Your task to perform on an android device: Show the shopping cart on target.com. Search for "usb-c" on target.com, select the first entry, and add it to the cart. Image 0: 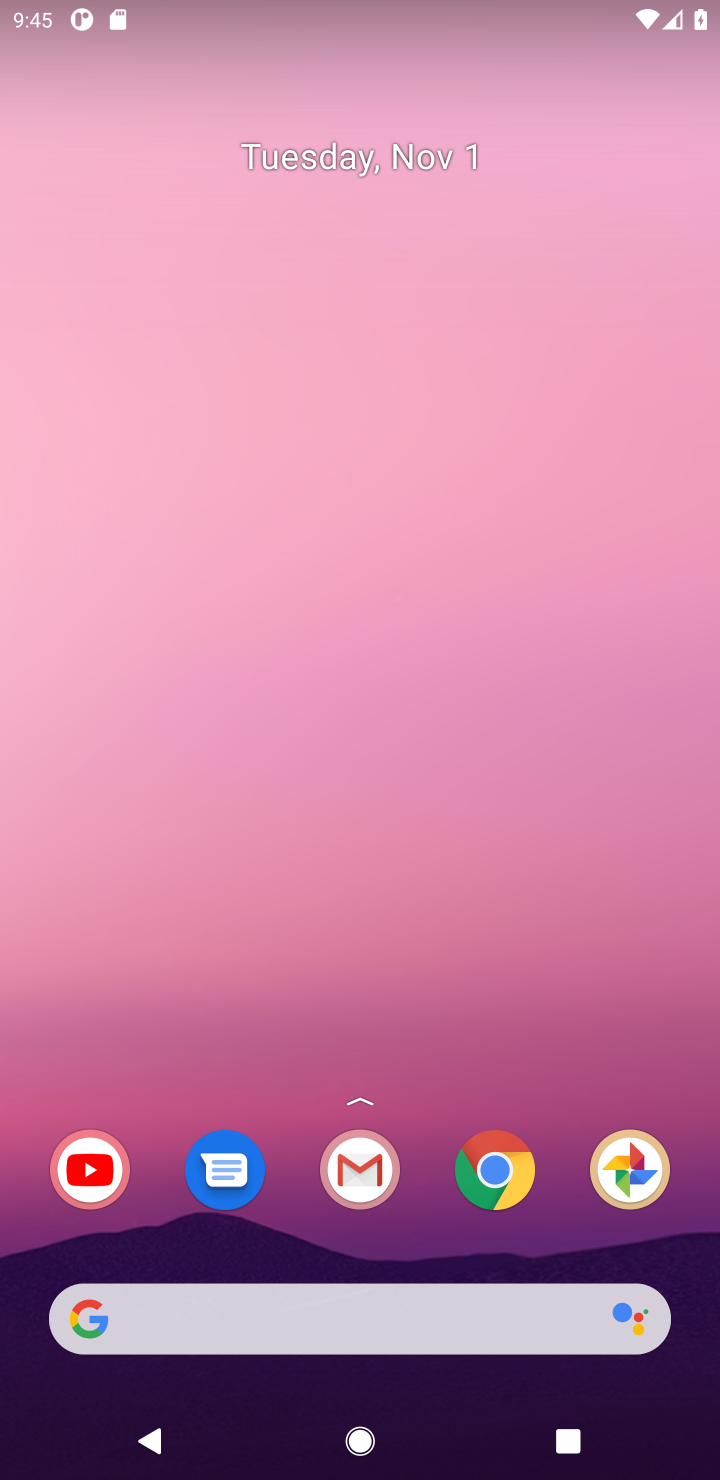
Step 0: click (504, 1162)
Your task to perform on an android device: Show the shopping cart on target.com. Search for "usb-c" on target.com, select the first entry, and add it to the cart. Image 1: 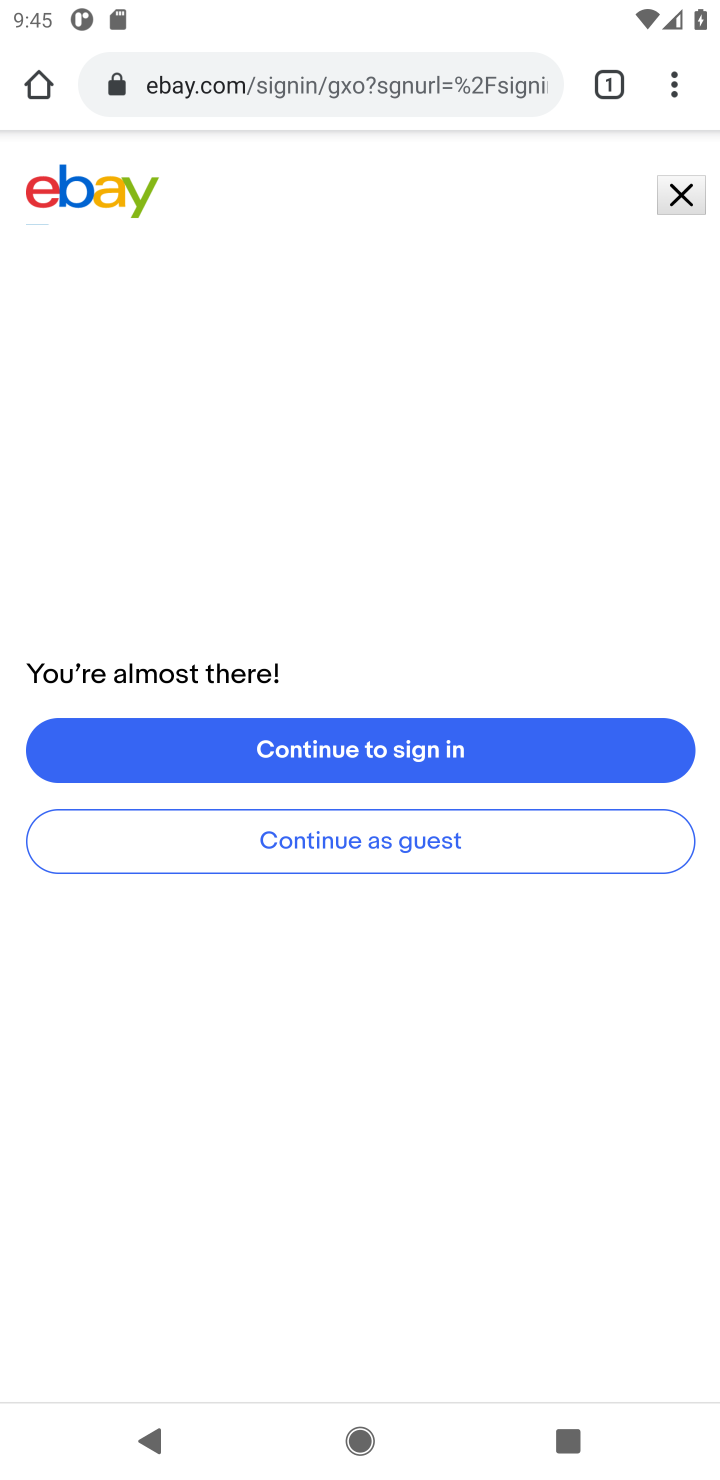
Step 1: click (400, 71)
Your task to perform on an android device: Show the shopping cart on target.com. Search for "usb-c" on target.com, select the first entry, and add it to the cart. Image 2: 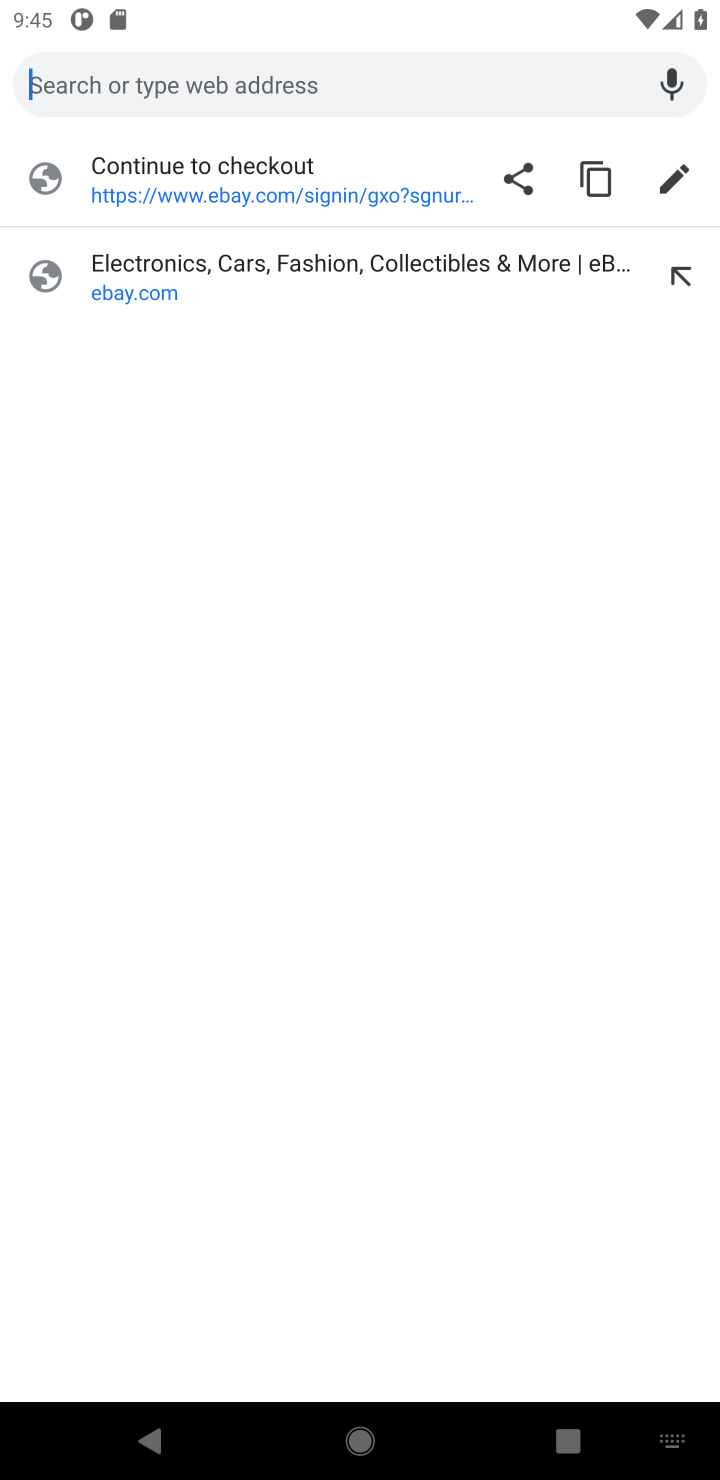
Step 2: type "target.com"
Your task to perform on an android device: Show the shopping cart on target.com. Search for "usb-c" on target.com, select the first entry, and add it to the cart. Image 3: 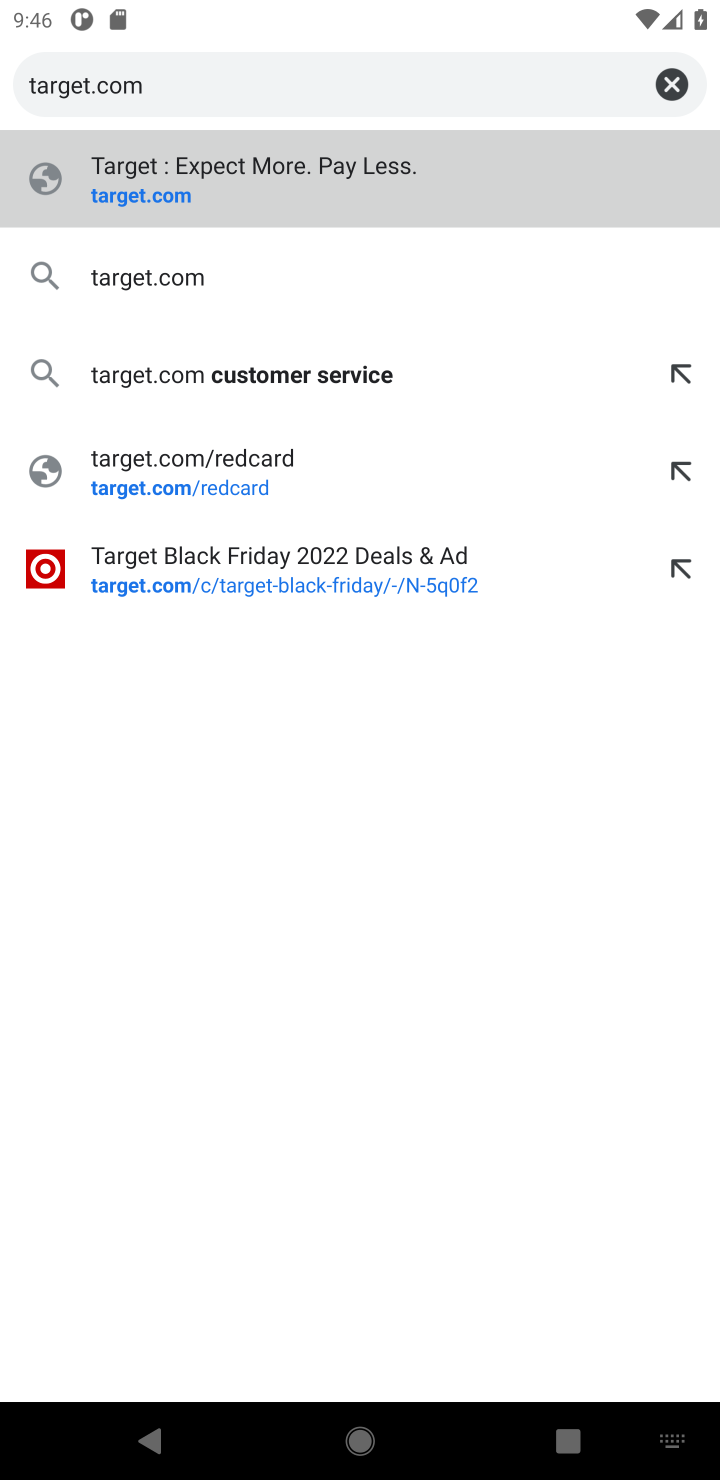
Step 3: click (206, 191)
Your task to perform on an android device: Show the shopping cart on target.com. Search for "usb-c" on target.com, select the first entry, and add it to the cart. Image 4: 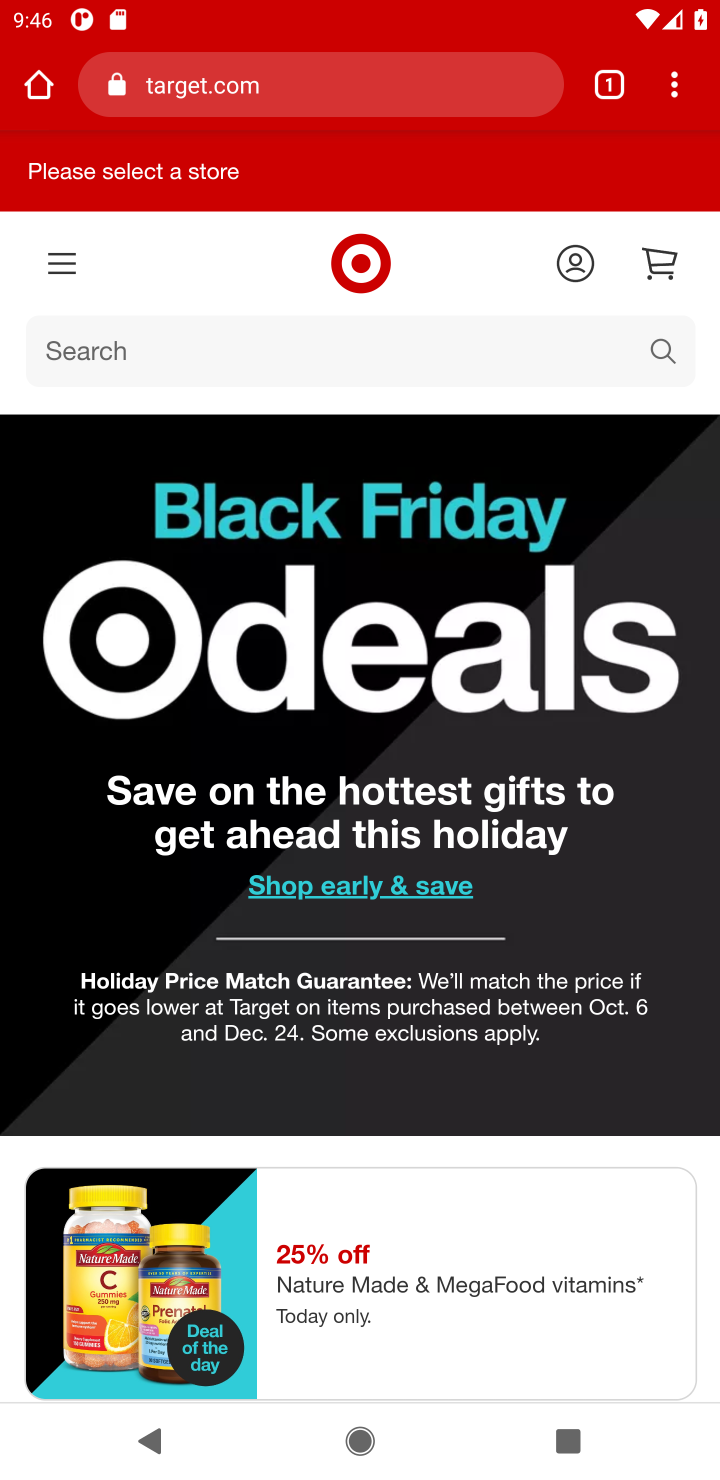
Step 4: click (387, 358)
Your task to perform on an android device: Show the shopping cart on target.com. Search for "usb-c" on target.com, select the first entry, and add it to the cart. Image 5: 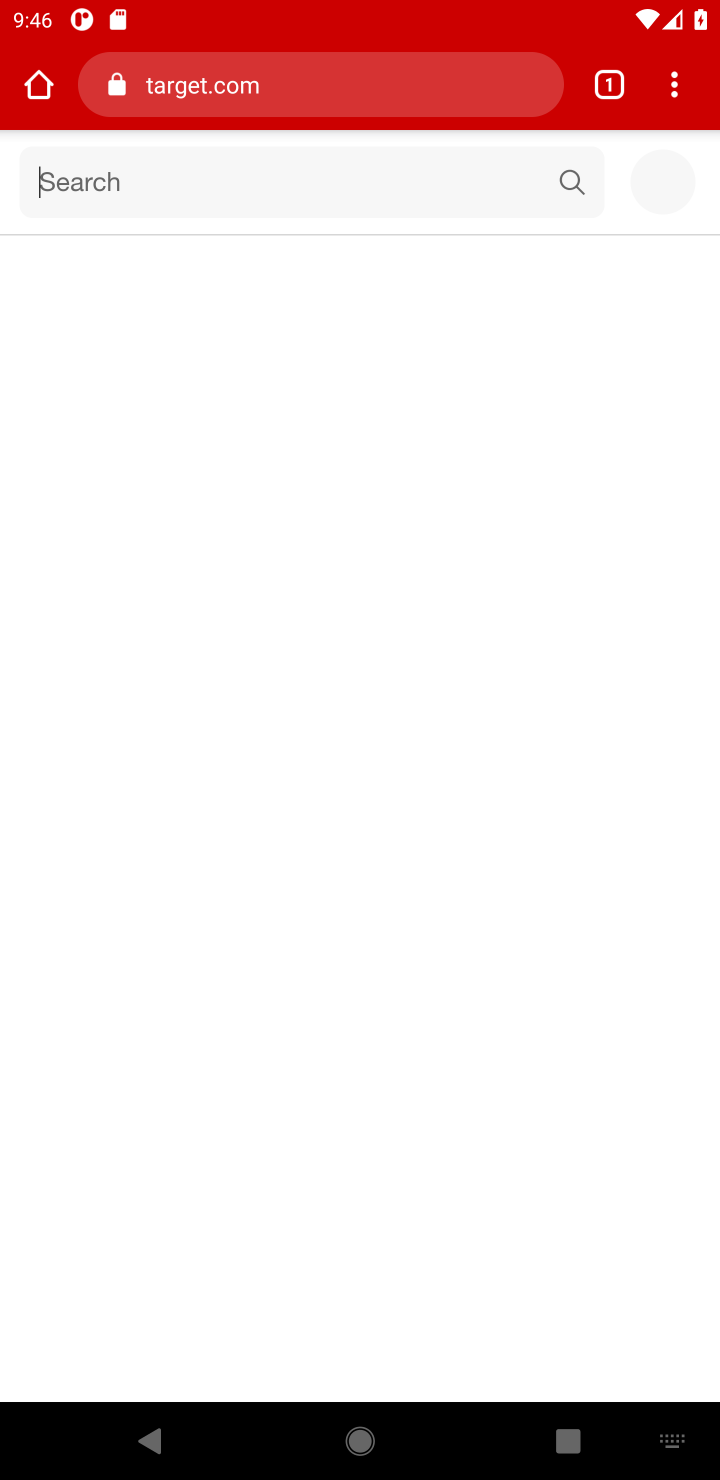
Step 5: click (318, 186)
Your task to perform on an android device: Show the shopping cart on target.com. Search for "usb-c" on target.com, select the first entry, and add it to the cart. Image 6: 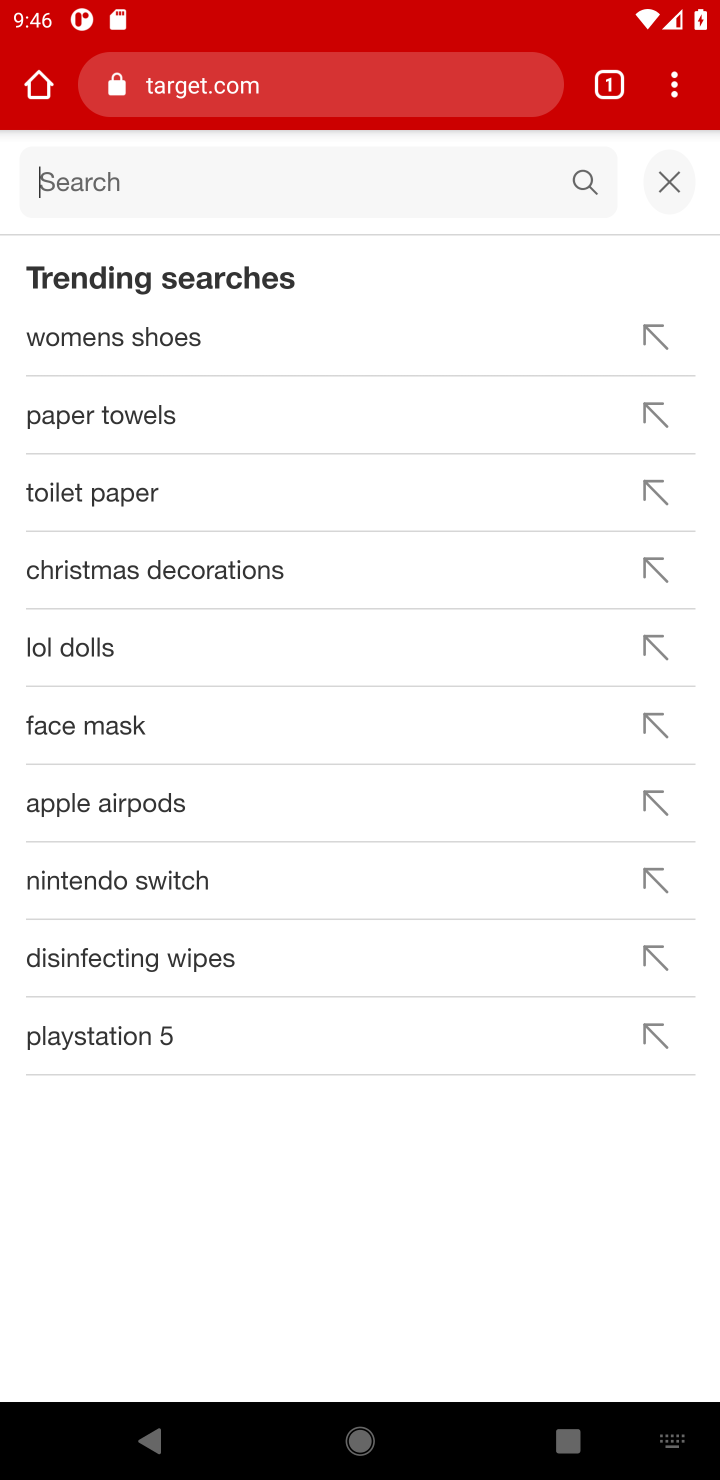
Step 6: type "usb-c"
Your task to perform on an android device: Show the shopping cart on target.com. Search for "usb-c" on target.com, select the first entry, and add it to the cart. Image 7: 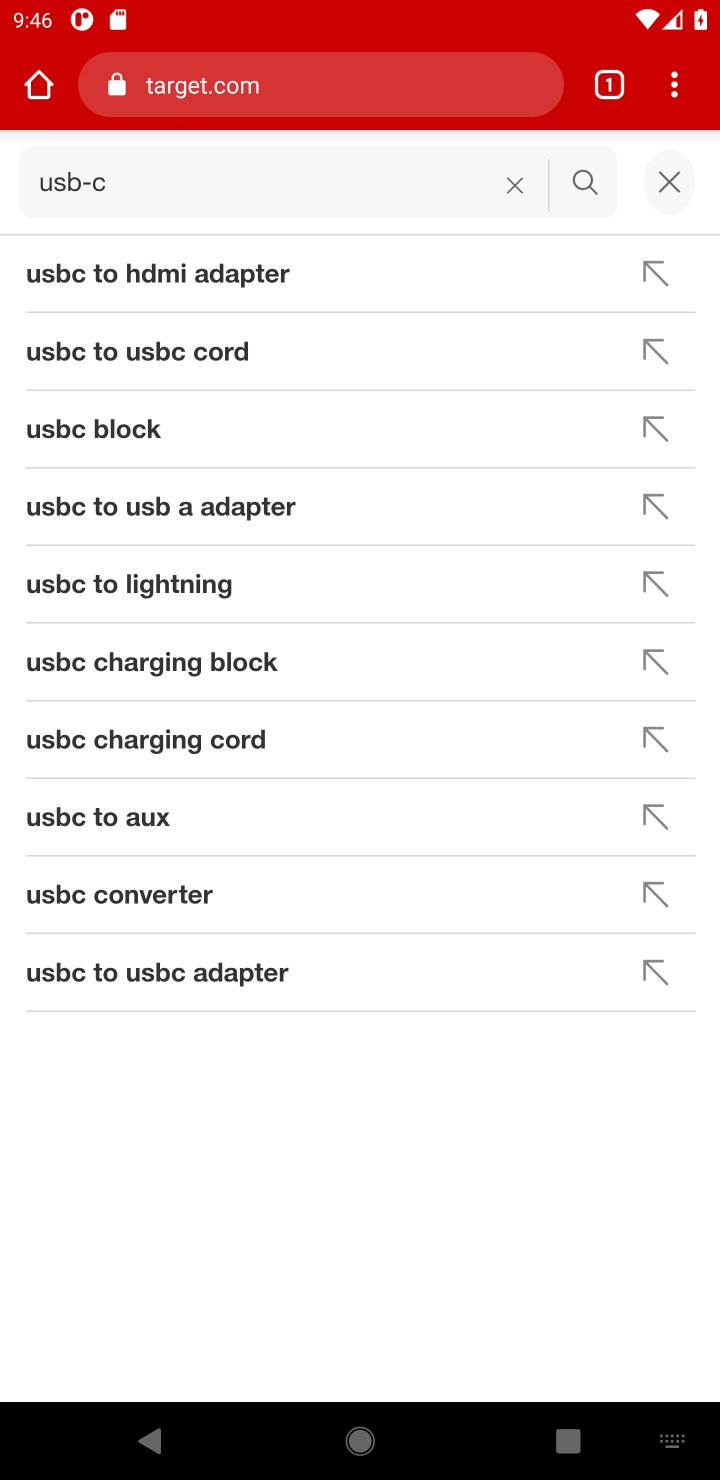
Step 7: task complete